Your task to perform on an android device: What is the news today? Image 0: 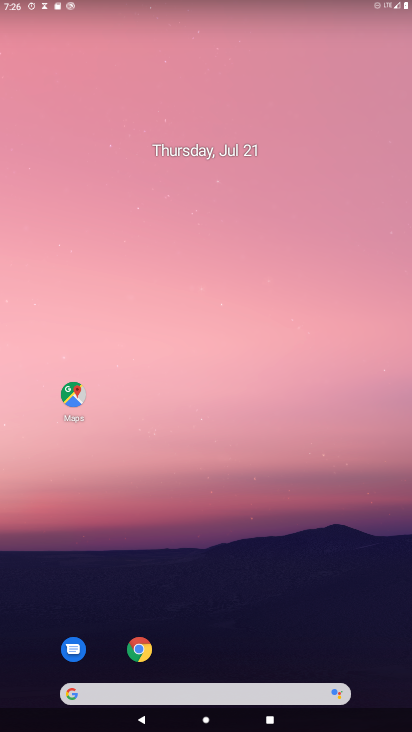
Step 0: drag from (343, 656) to (243, 37)
Your task to perform on an android device: What is the news today? Image 1: 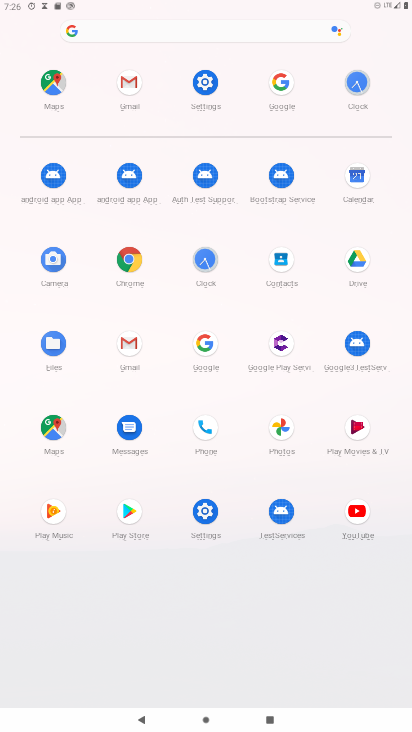
Step 1: click (203, 339)
Your task to perform on an android device: What is the news today? Image 2: 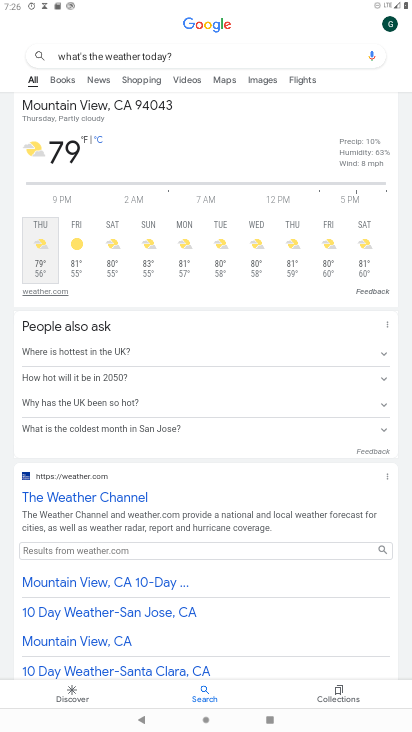
Step 2: press back button
Your task to perform on an android device: What is the news today? Image 3: 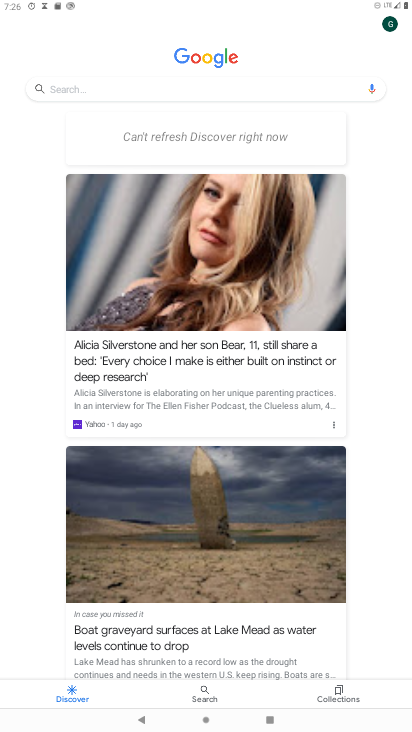
Step 3: click (59, 94)
Your task to perform on an android device: What is the news today? Image 4: 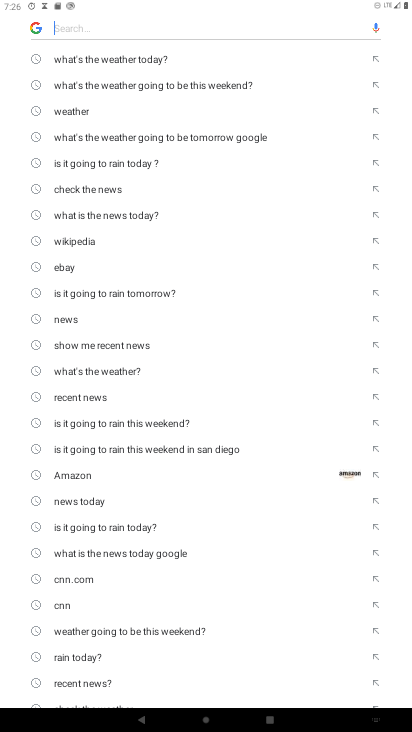
Step 4: click (69, 218)
Your task to perform on an android device: What is the news today? Image 5: 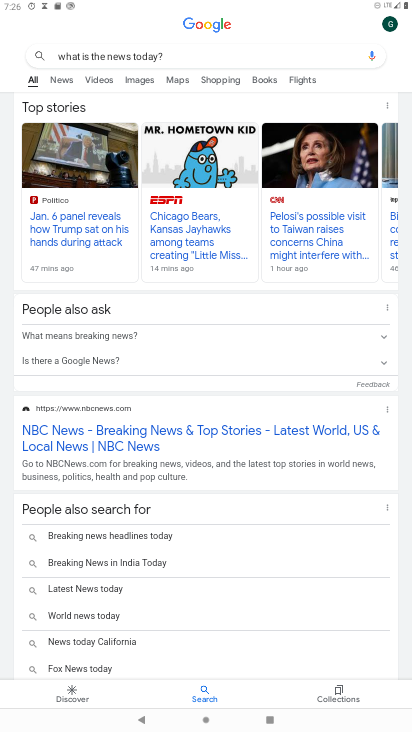
Step 5: task complete